Your task to perform on an android device: change text size in settings app Image 0: 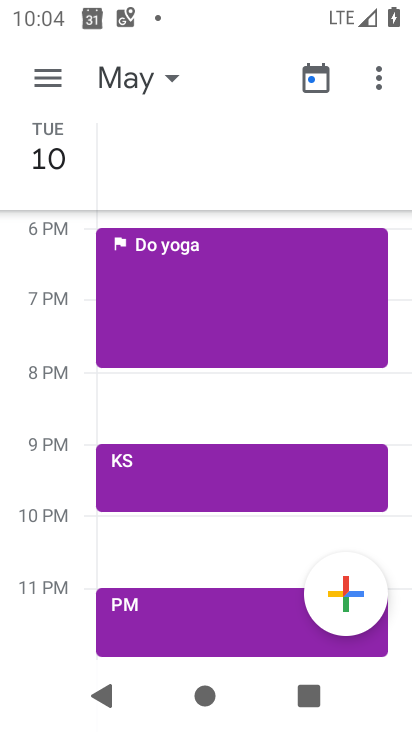
Step 0: press back button
Your task to perform on an android device: change text size in settings app Image 1: 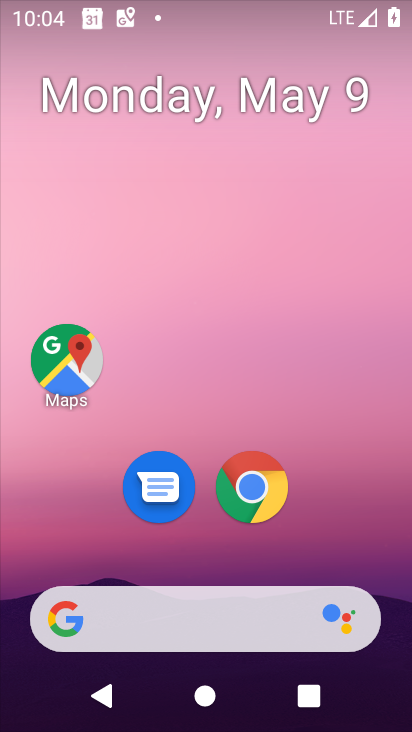
Step 1: drag from (340, 506) to (261, 35)
Your task to perform on an android device: change text size in settings app Image 2: 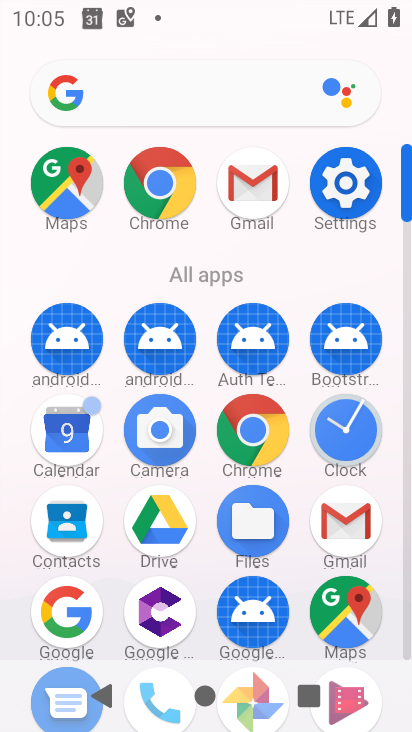
Step 2: drag from (16, 563) to (14, 229)
Your task to perform on an android device: change text size in settings app Image 3: 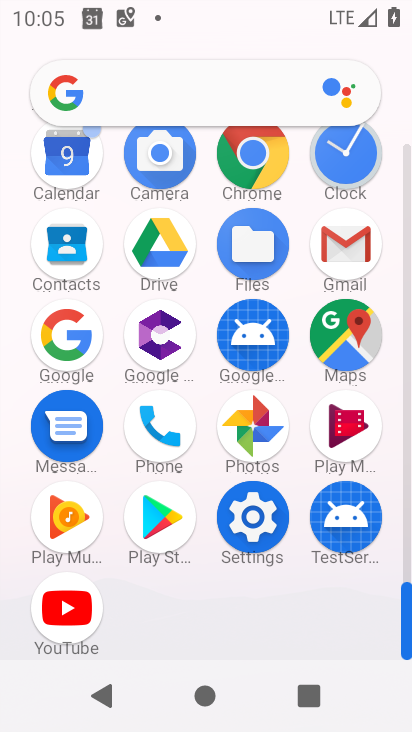
Step 3: click (253, 513)
Your task to perform on an android device: change text size in settings app Image 4: 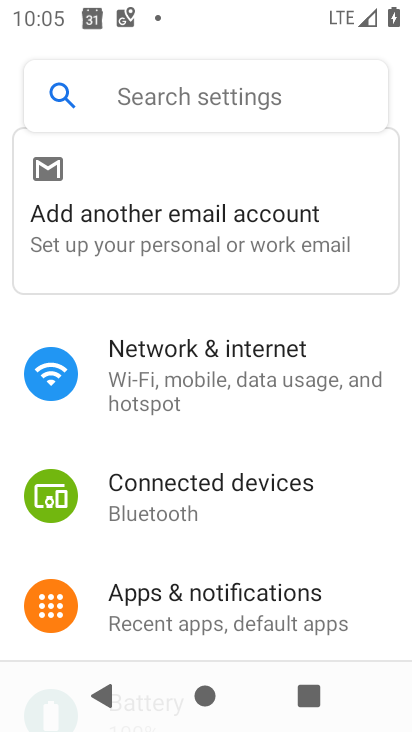
Step 4: drag from (334, 588) to (334, 167)
Your task to perform on an android device: change text size in settings app Image 5: 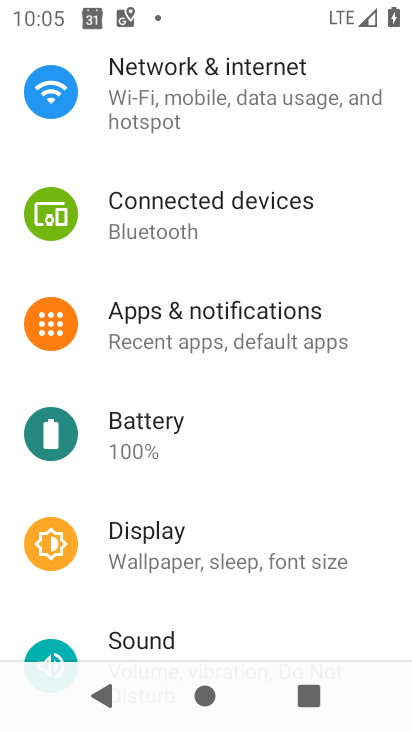
Step 5: drag from (274, 541) to (269, 107)
Your task to perform on an android device: change text size in settings app Image 6: 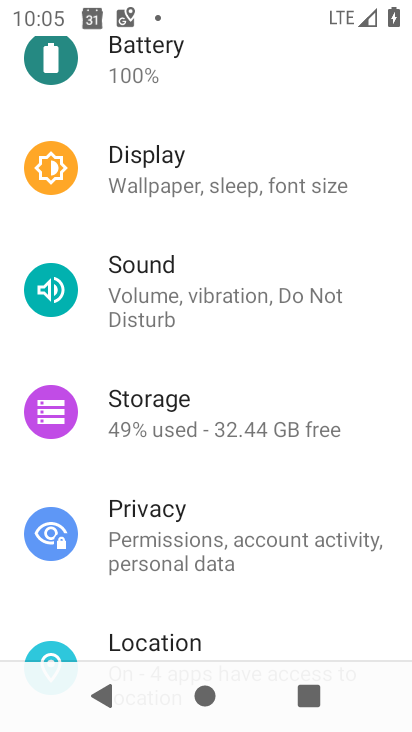
Step 6: click (247, 170)
Your task to perform on an android device: change text size in settings app Image 7: 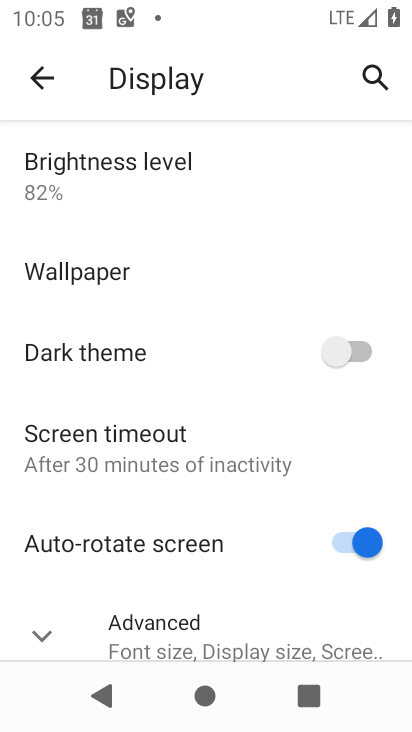
Step 7: drag from (164, 554) to (183, 154)
Your task to perform on an android device: change text size in settings app Image 8: 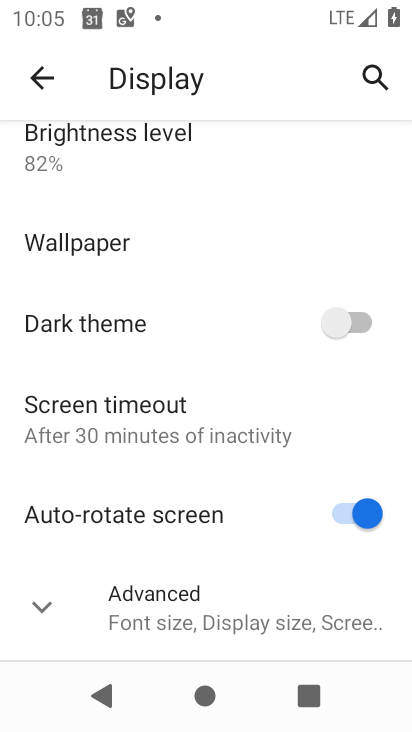
Step 8: click (45, 579)
Your task to perform on an android device: change text size in settings app Image 9: 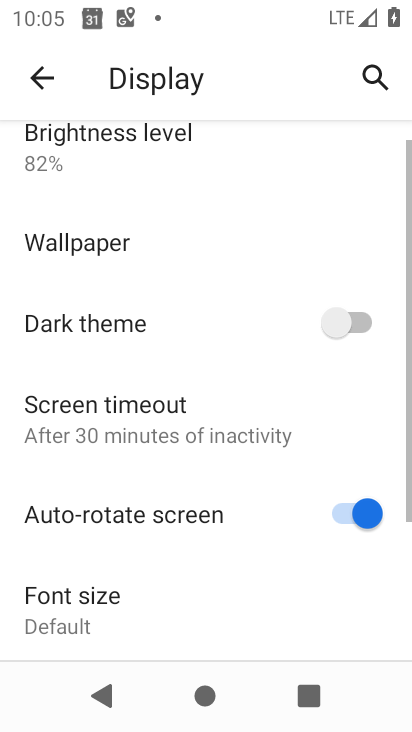
Step 9: drag from (194, 577) to (200, 115)
Your task to perform on an android device: change text size in settings app Image 10: 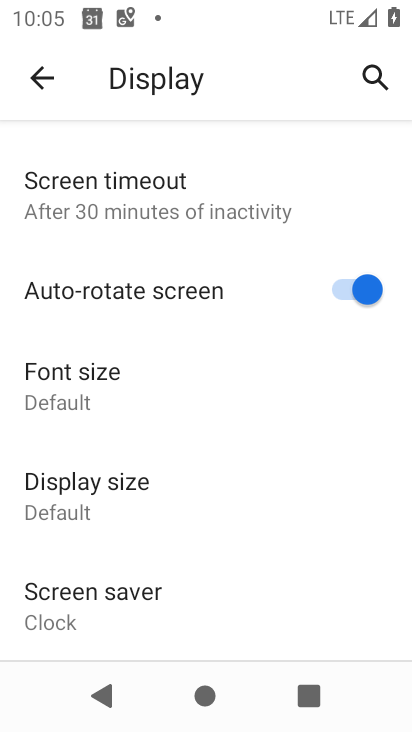
Step 10: drag from (220, 477) to (214, 142)
Your task to perform on an android device: change text size in settings app Image 11: 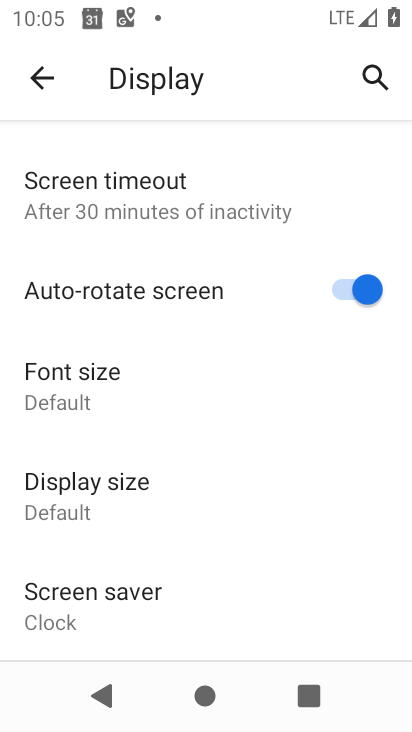
Step 11: click (130, 397)
Your task to perform on an android device: change text size in settings app Image 12: 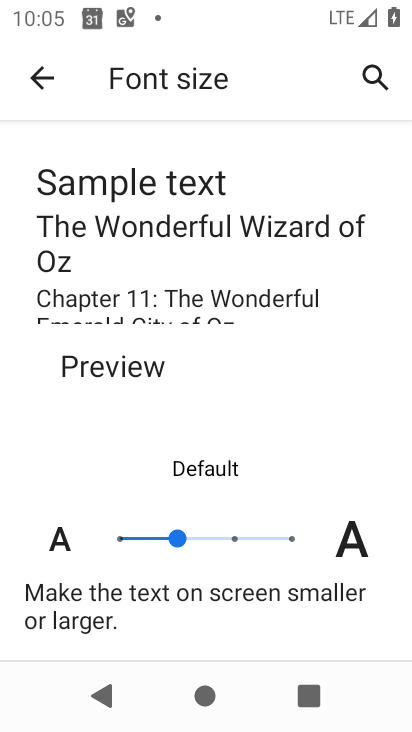
Step 12: click (222, 536)
Your task to perform on an android device: change text size in settings app Image 13: 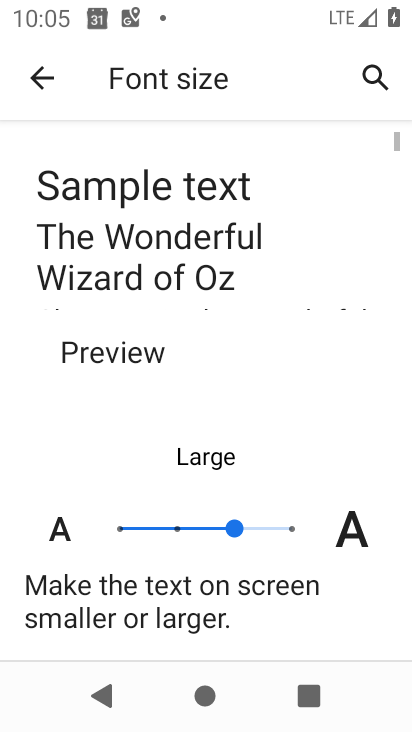
Step 13: drag from (112, 587) to (108, 211)
Your task to perform on an android device: change text size in settings app Image 14: 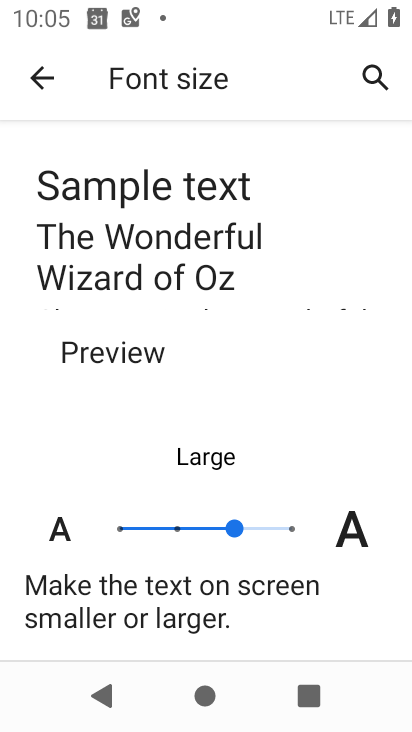
Step 14: drag from (120, 566) to (135, 182)
Your task to perform on an android device: change text size in settings app Image 15: 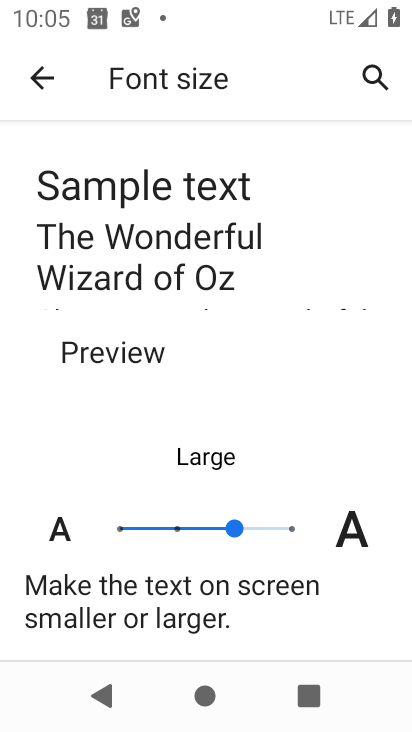
Step 15: drag from (102, 547) to (138, 165)
Your task to perform on an android device: change text size in settings app Image 16: 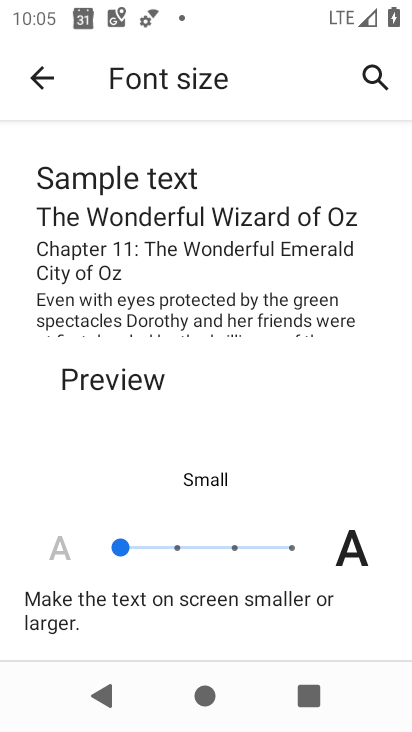
Step 16: click (288, 549)
Your task to perform on an android device: change text size in settings app Image 17: 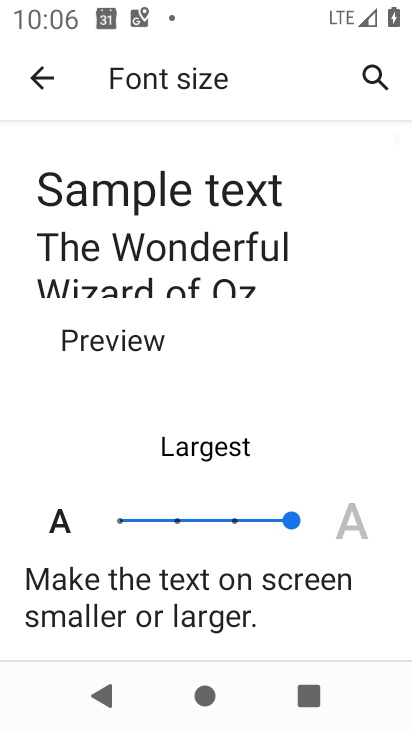
Step 17: task complete